Your task to perform on an android device: Go to network settings Image 0: 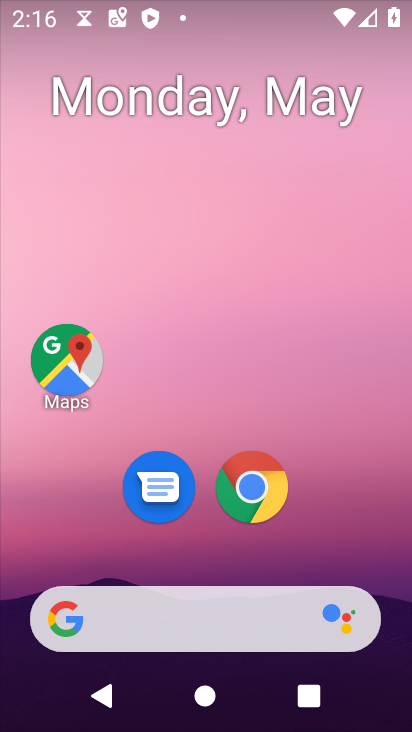
Step 0: drag from (348, 532) to (297, 152)
Your task to perform on an android device: Go to network settings Image 1: 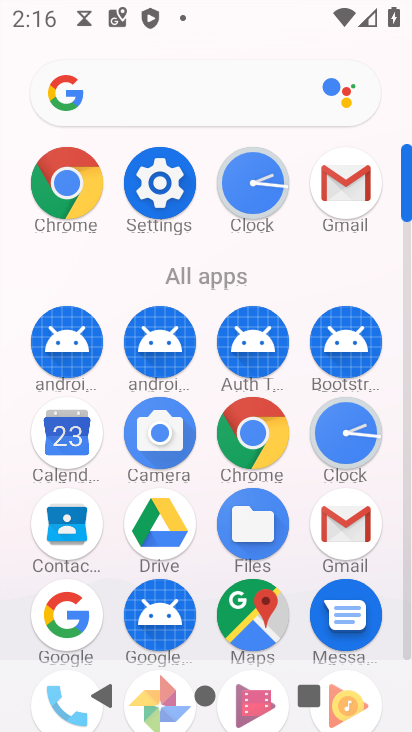
Step 1: click (171, 203)
Your task to perform on an android device: Go to network settings Image 2: 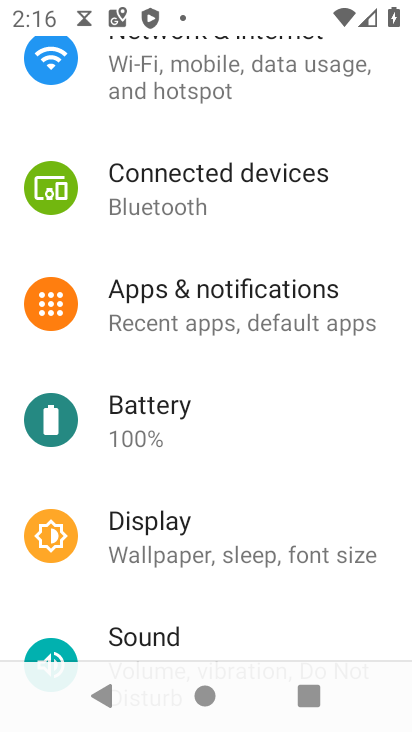
Step 2: click (274, 80)
Your task to perform on an android device: Go to network settings Image 3: 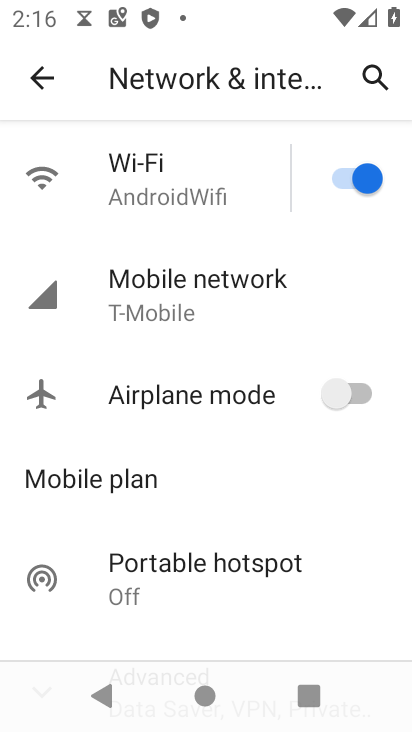
Step 3: task complete